Your task to perform on an android device: Open Youtube and go to the subscriptions tab Image 0: 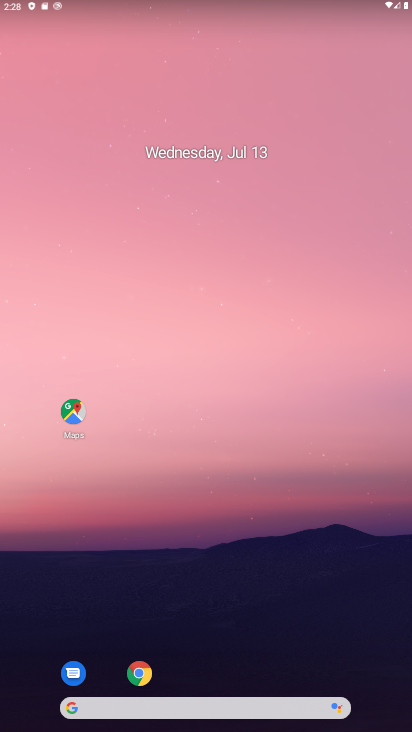
Step 0: drag from (169, 700) to (255, 152)
Your task to perform on an android device: Open Youtube and go to the subscriptions tab Image 1: 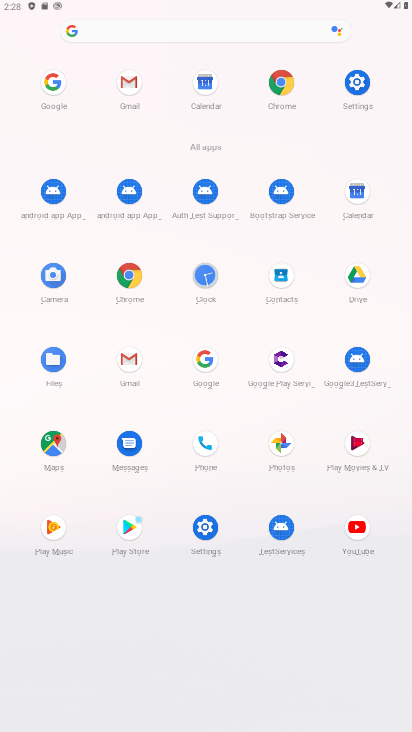
Step 1: click (356, 526)
Your task to perform on an android device: Open Youtube and go to the subscriptions tab Image 2: 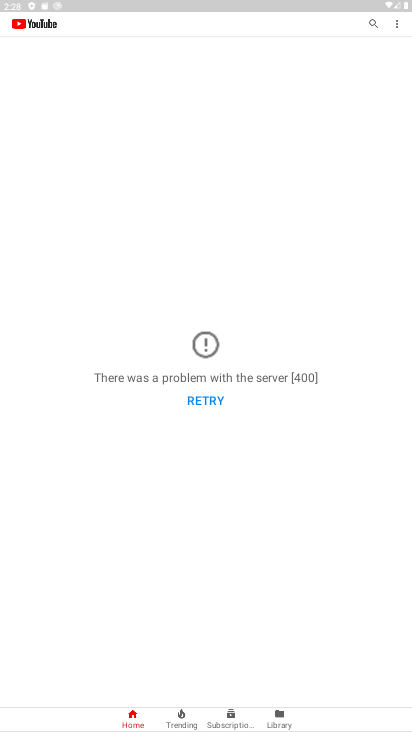
Step 2: click (229, 719)
Your task to perform on an android device: Open Youtube and go to the subscriptions tab Image 3: 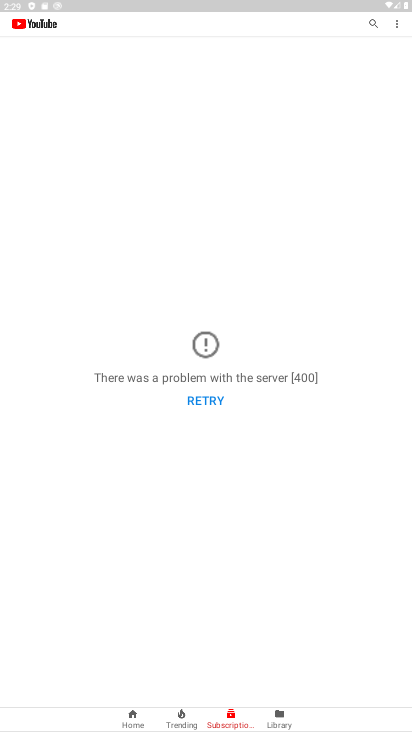
Step 3: task complete